Your task to perform on an android device: Open privacy settings Image 0: 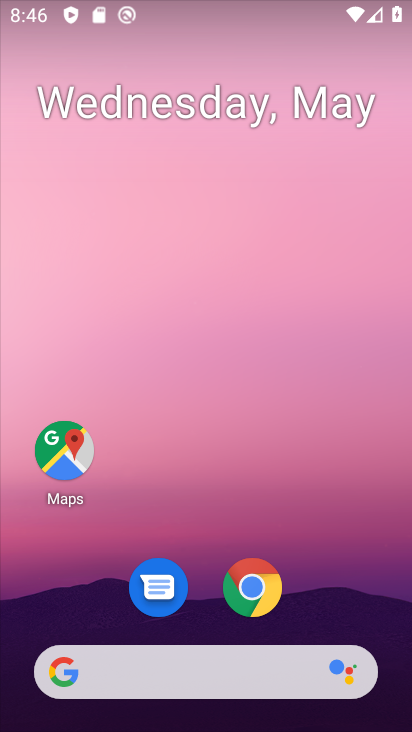
Step 0: drag from (209, 725) to (201, 158)
Your task to perform on an android device: Open privacy settings Image 1: 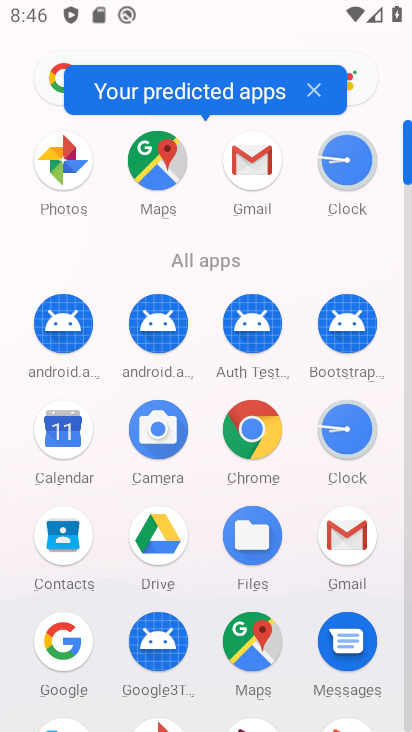
Step 1: drag from (204, 640) to (169, 235)
Your task to perform on an android device: Open privacy settings Image 2: 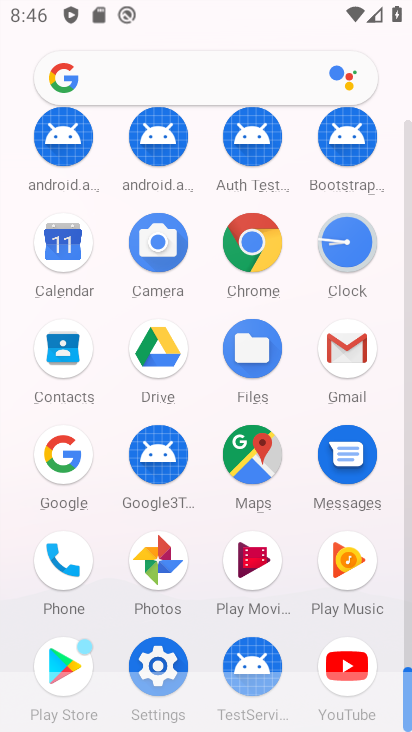
Step 2: click (160, 661)
Your task to perform on an android device: Open privacy settings Image 3: 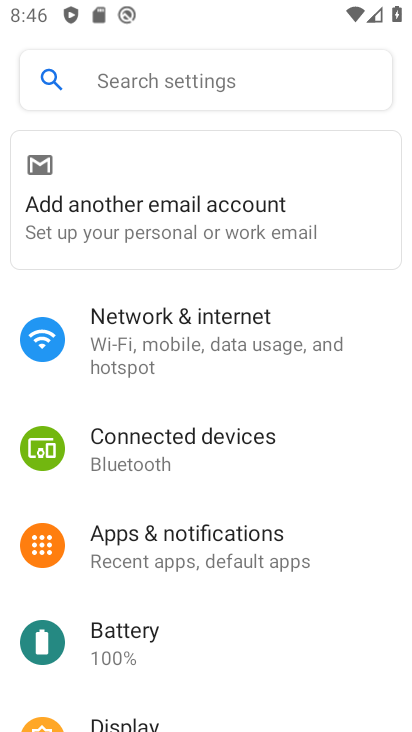
Step 3: drag from (200, 651) to (202, 299)
Your task to perform on an android device: Open privacy settings Image 4: 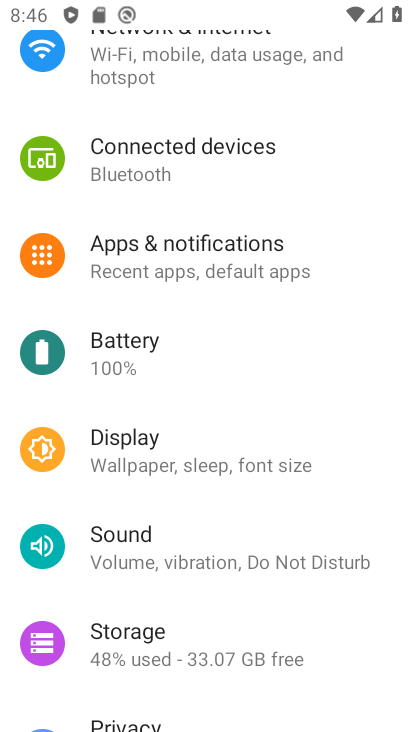
Step 4: drag from (176, 695) to (175, 356)
Your task to perform on an android device: Open privacy settings Image 5: 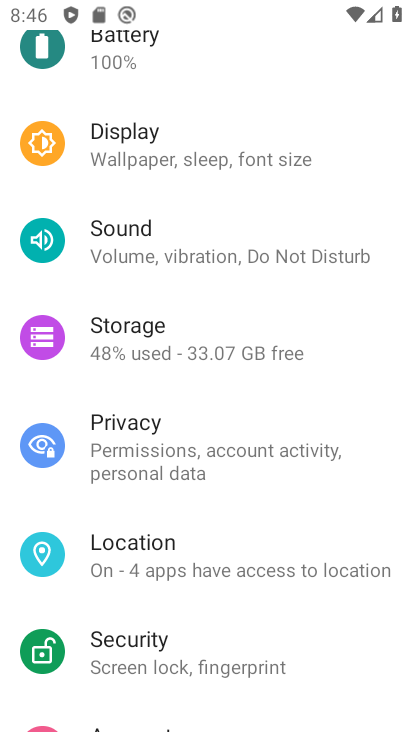
Step 5: click (139, 447)
Your task to perform on an android device: Open privacy settings Image 6: 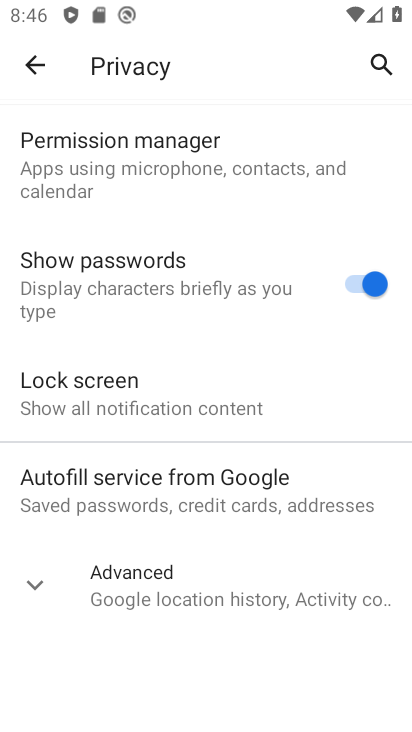
Step 6: task complete